Your task to perform on an android device: add a contact in the contacts app Image 0: 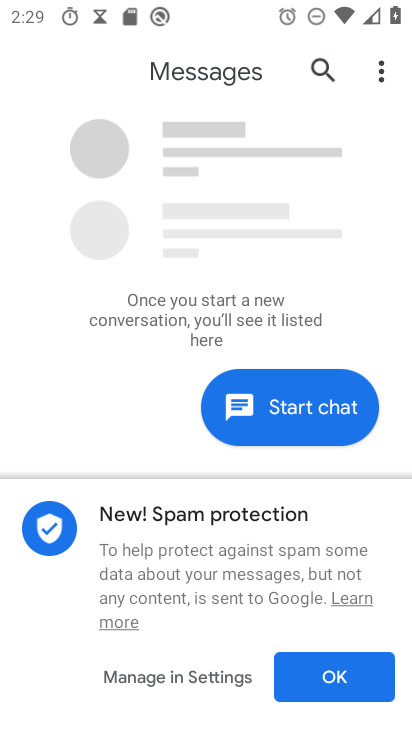
Step 0: press home button
Your task to perform on an android device: add a contact in the contacts app Image 1: 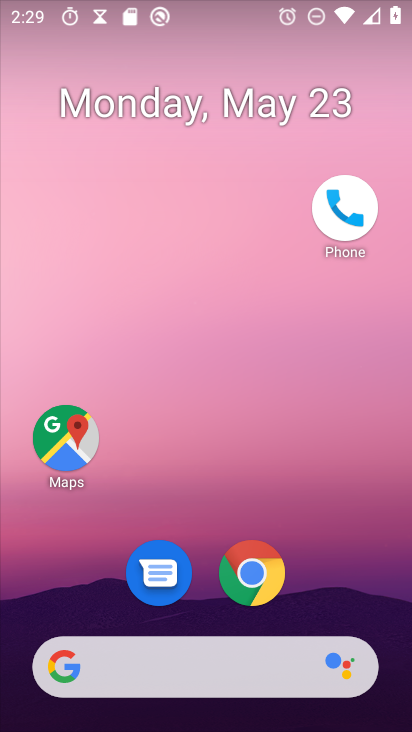
Step 1: drag from (128, 684) to (315, 170)
Your task to perform on an android device: add a contact in the contacts app Image 2: 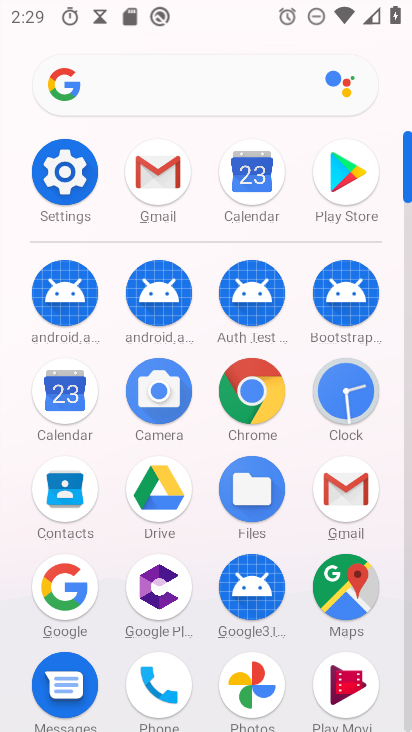
Step 2: click (55, 506)
Your task to perform on an android device: add a contact in the contacts app Image 3: 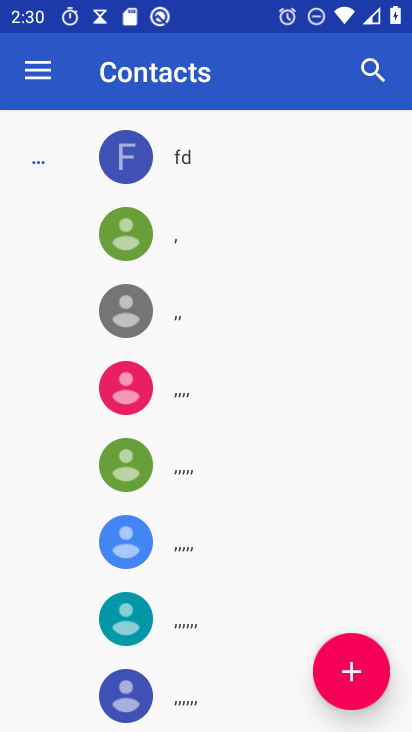
Step 3: click (336, 662)
Your task to perform on an android device: add a contact in the contacts app Image 4: 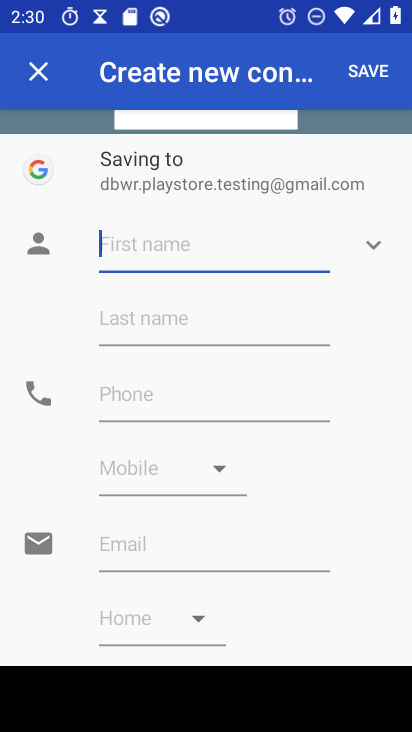
Step 4: type "vtrefh"
Your task to perform on an android device: add a contact in the contacts app Image 5: 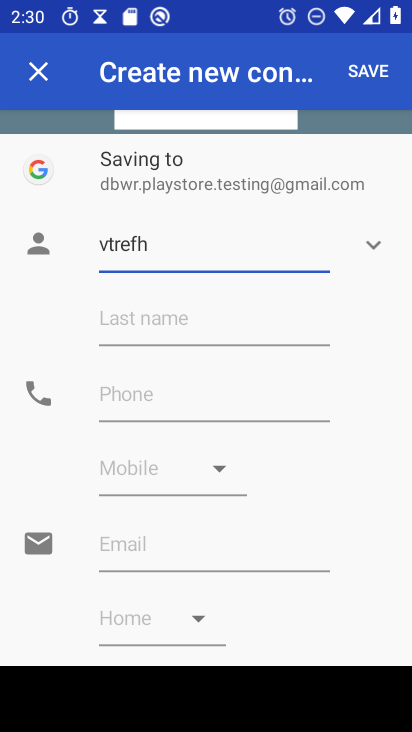
Step 5: click (133, 397)
Your task to perform on an android device: add a contact in the contacts app Image 6: 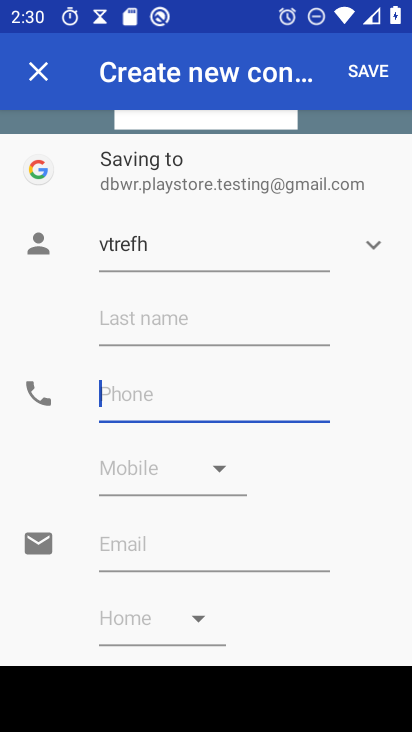
Step 6: type "879888"
Your task to perform on an android device: add a contact in the contacts app Image 7: 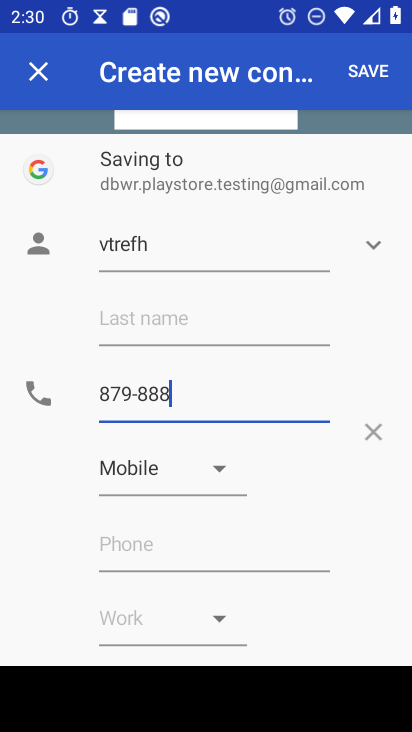
Step 7: click (367, 67)
Your task to perform on an android device: add a contact in the contacts app Image 8: 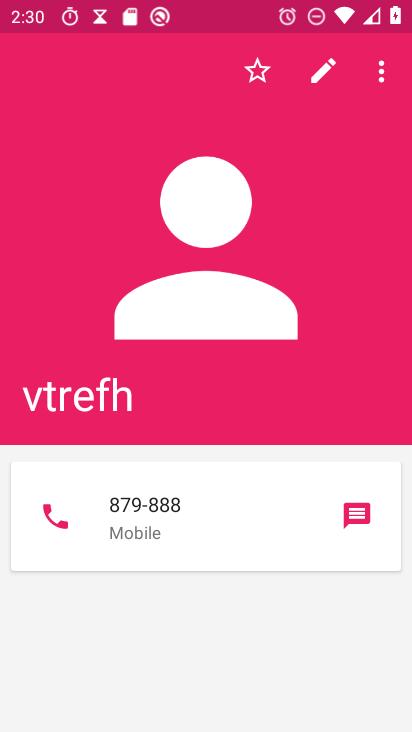
Step 8: task complete